Your task to perform on an android device: Show me recent news Image 0: 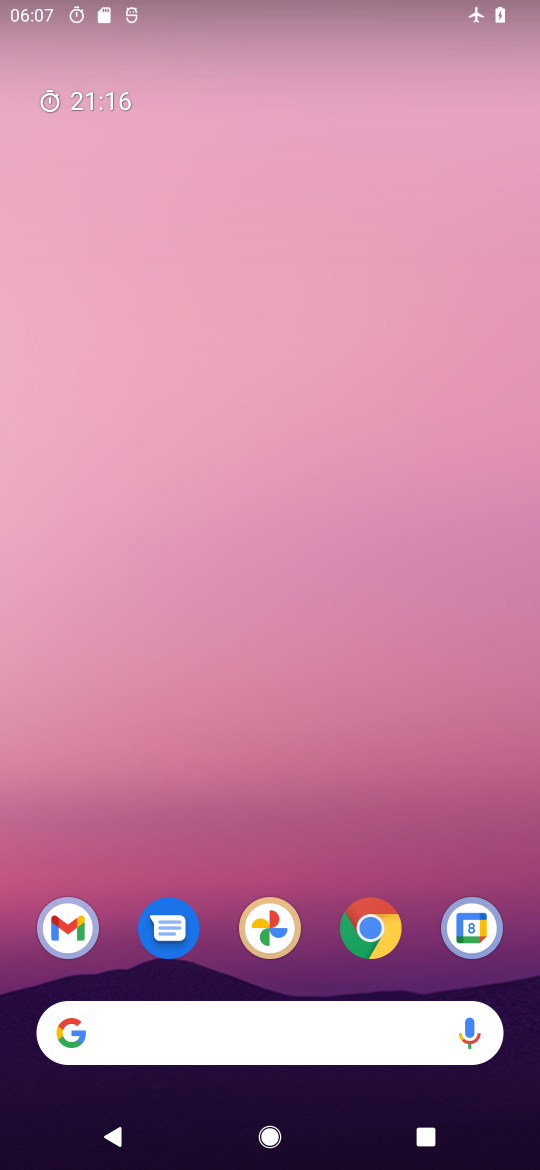
Step 0: click (213, 1038)
Your task to perform on an android device: Show me recent news Image 1: 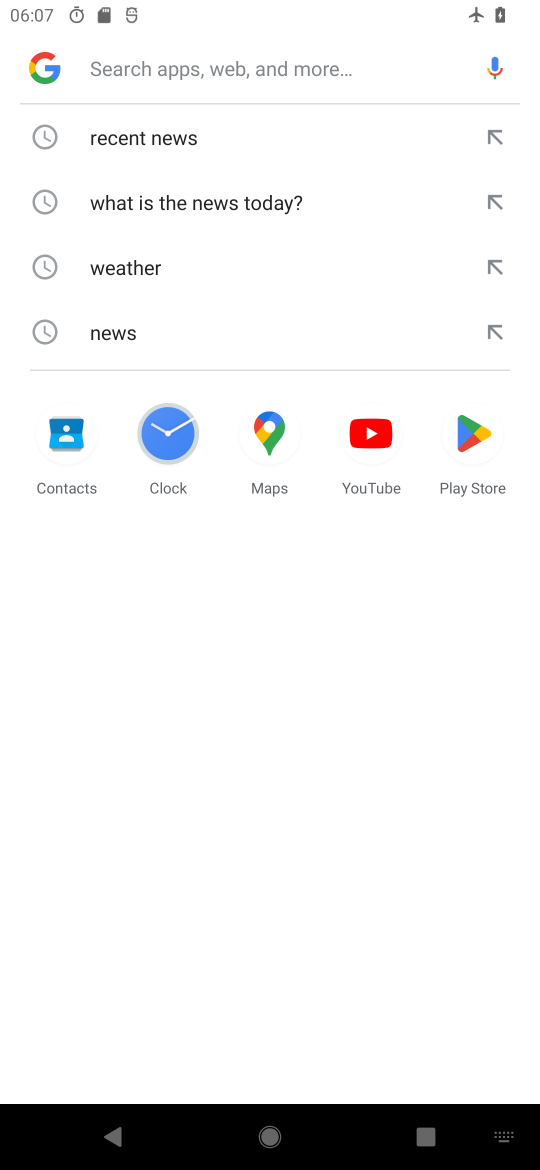
Step 1: click (121, 142)
Your task to perform on an android device: Show me recent news Image 2: 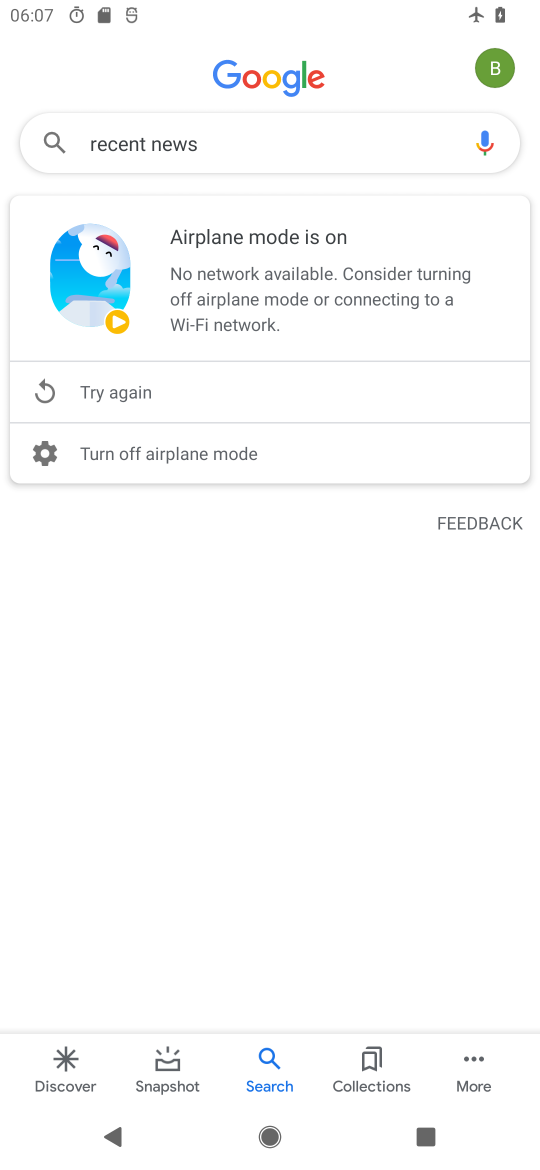
Step 2: task complete